Your task to perform on an android device: open device folders in google photos Image 0: 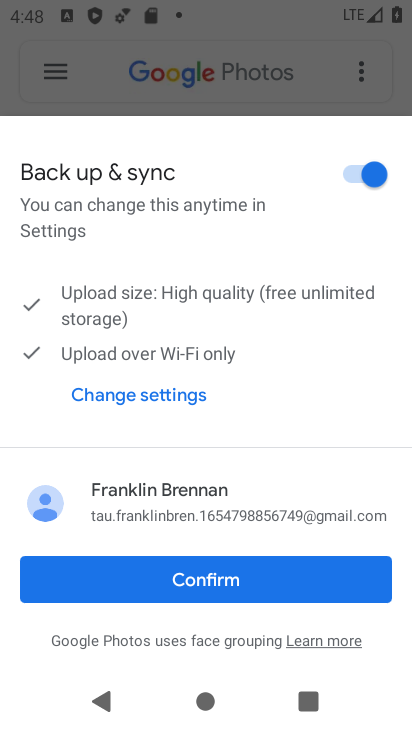
Step 0: click (362, 581)
Your task to perform on an android device: open device folders in google photos Image 1: 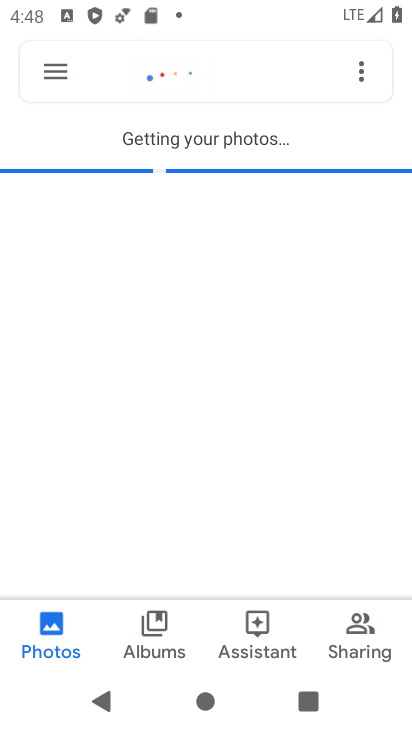
Step 1: click (61, 61)
Your task to perform on an android device: open device folders in google photos Image 2: 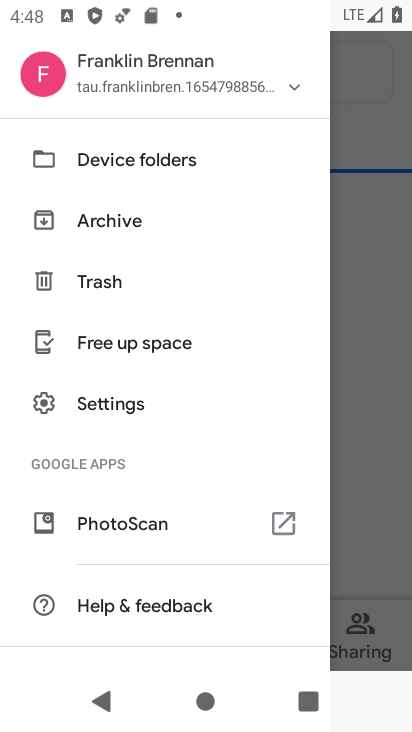
Step 2: click (124, 148)
Your task to perform on an android device: open device folders in google photos Image 3: 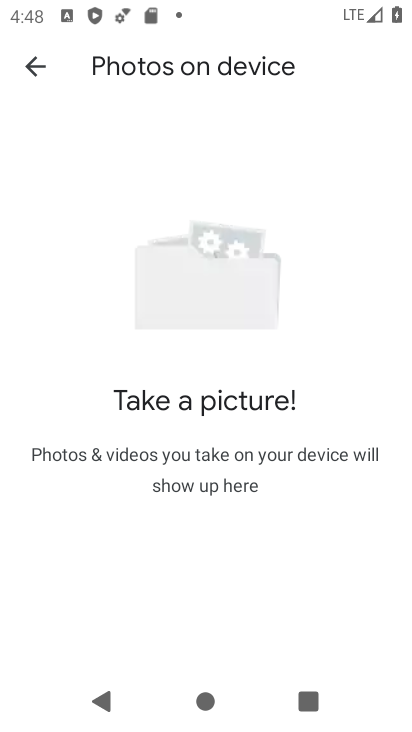
Step 3: task complete